Your task to perform on an android device: open sync settings in chrome Image 0: 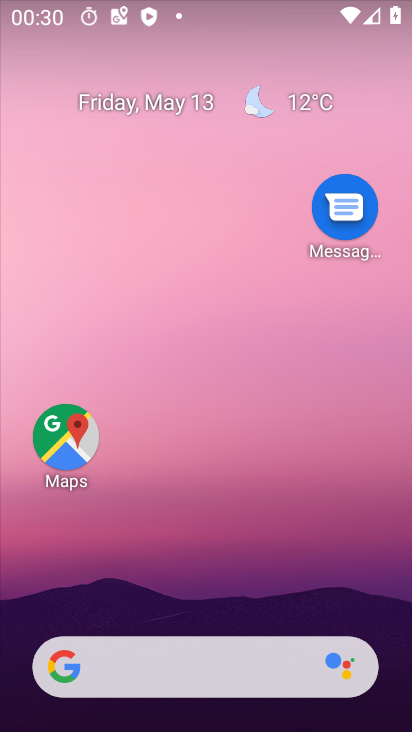
Step 0: press home button
Your task to perform on an android device: open sync settings in chrome Image 1: 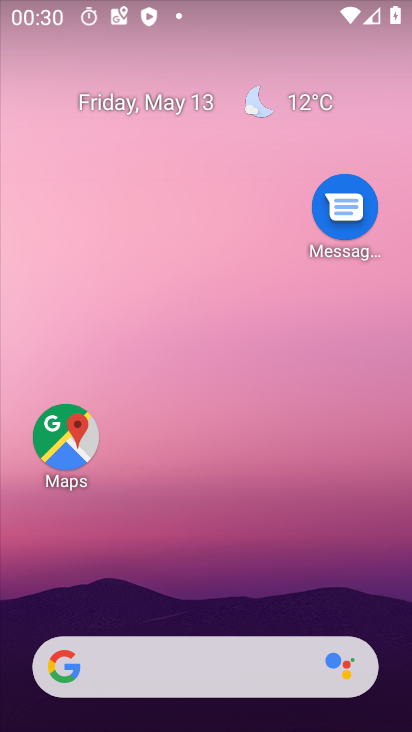
Step 1: drag from (304, 597) to (332, 9)
Your task to perform on an android device: open sync settings in chrome Image 2: 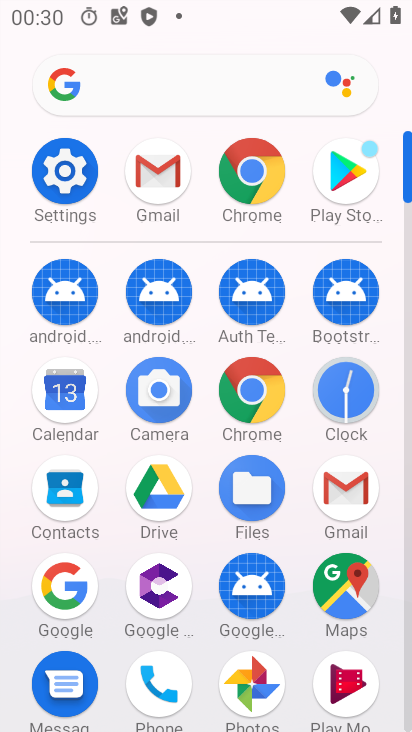
Step 2: click (225, 166)
Your task to perform on an android device: open sync settings in chrome Image 3: 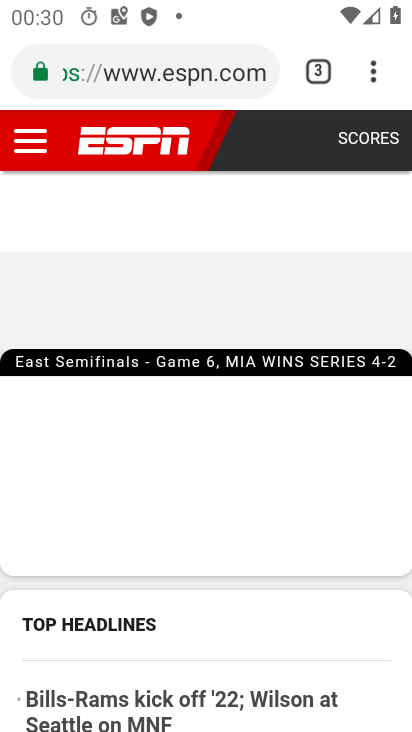
Step 3: drag from (370, 68) to (144, 568)
Your task to perform on an android device: open sync settings in chrome Image 4: 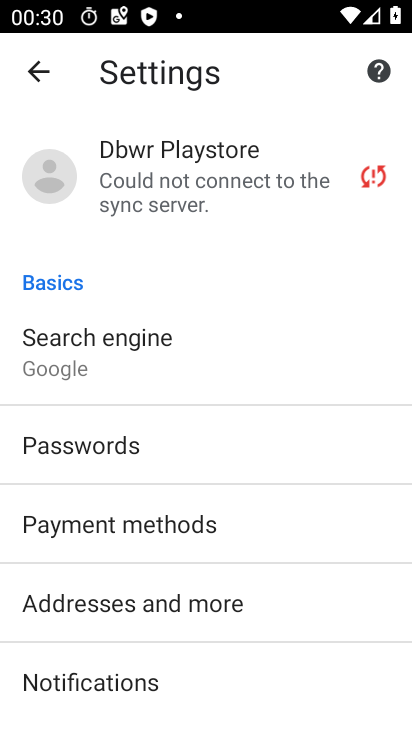
Step 4: click (139, 162)
Your task to perform on an android device: open sync settings in chrome Image 5: 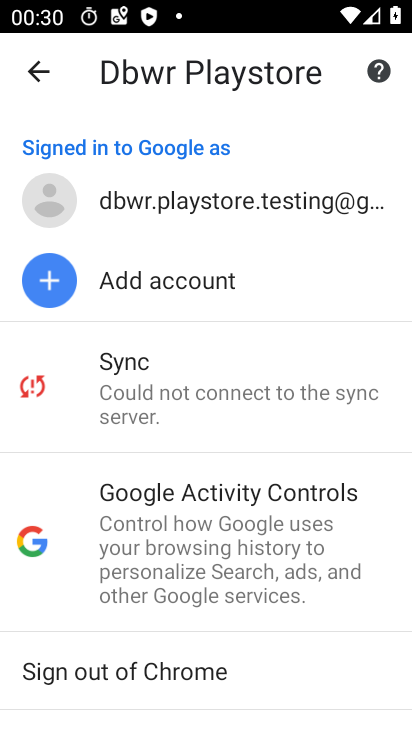
Step 5: click (162, 428)
Your task to perform on an android device: open sync settings in chrome Image 6: 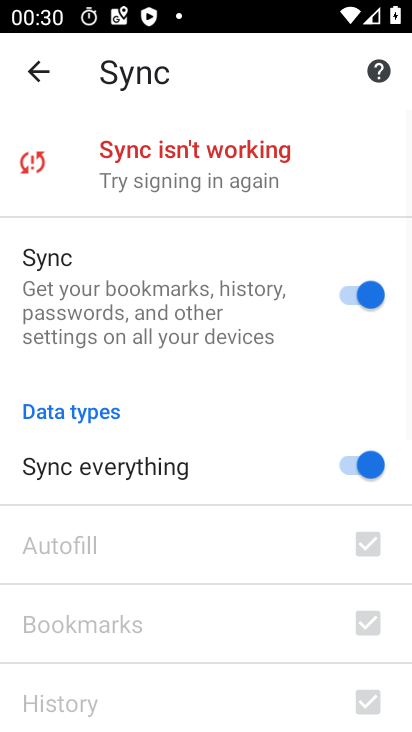
Step 6: task complete